Your task to perform on an android device: Do I have any events today? Image 0: 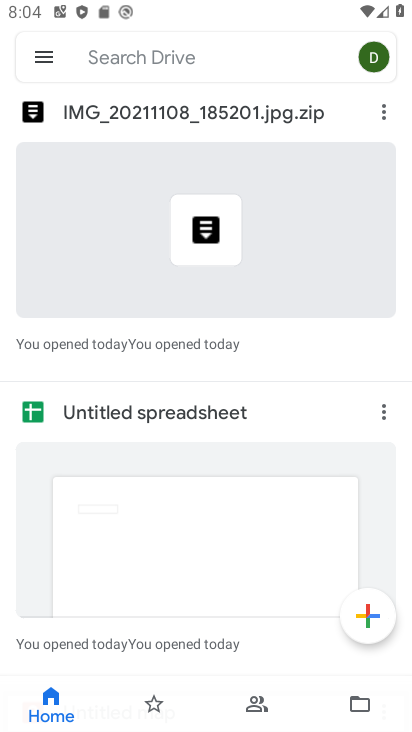
Step 0: press home button
Your task to perform on an android device: Do I have any events today? Image 1: 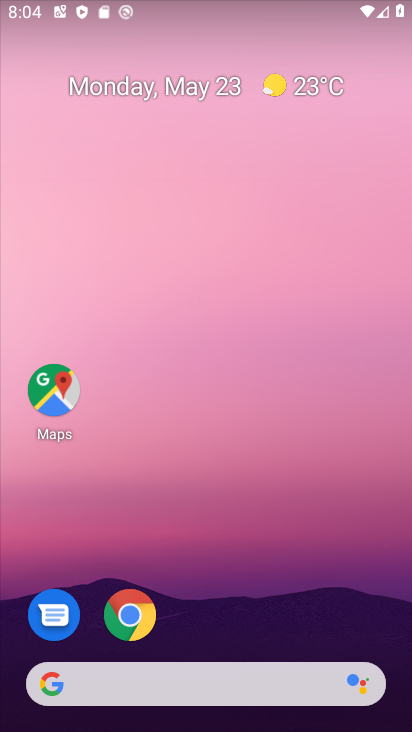
Step 1: drag from (271, 608) to (202, 157)
Your task to perform on an android device: Do I have any events today? Image 2: 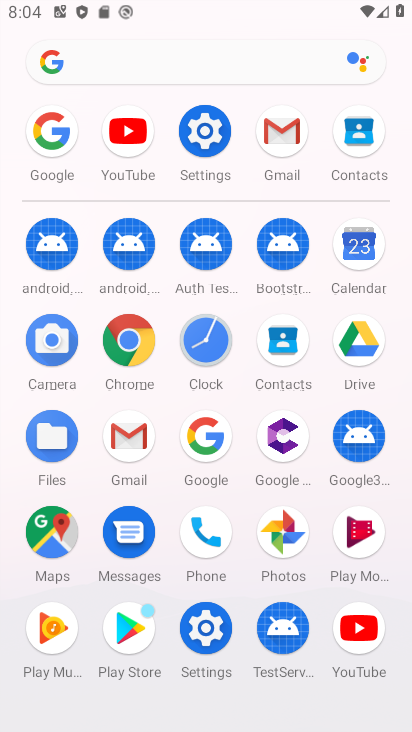
Step 2: click (360, 244)
Your task to perform on an android device: Do I have any events today? Image 3: 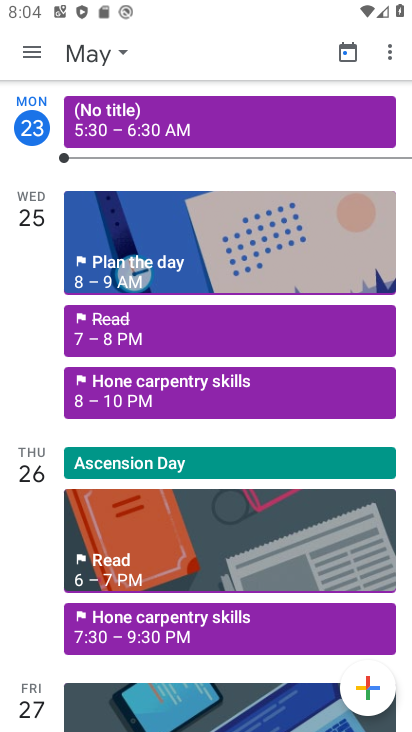
Step 3: click (354, 49)
Your task to perform on an android device: Do I have any events today? Image 4: 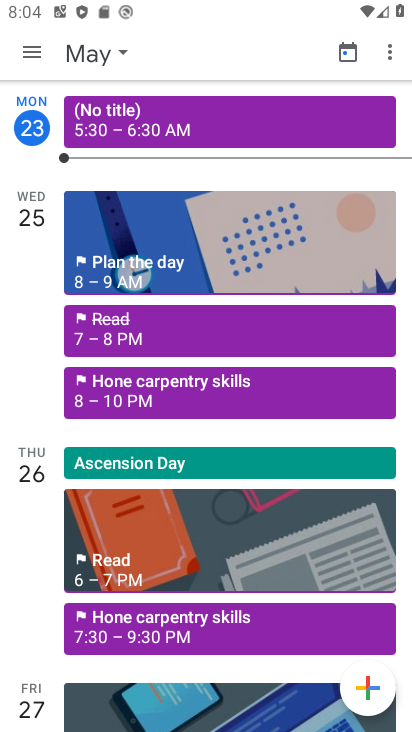
Step 4: click (117, 51)
Your task to perform on an android device: Do I have any events today? Image 5: 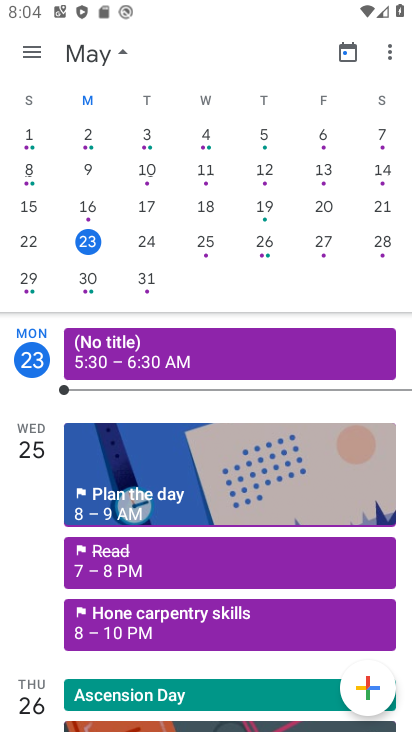
Step 5: click (156, 338)
Your task to perform on an android device: Do I have any events today? Image 6: 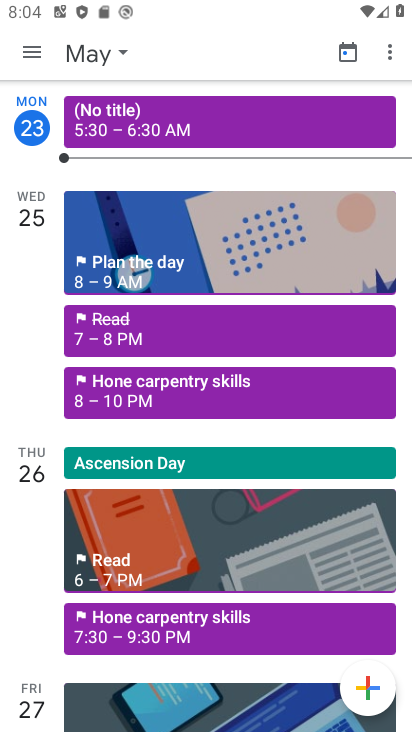
Step 6: click (216, 103)
Your task to perform on an android device: Do I have any events today? Image 7: 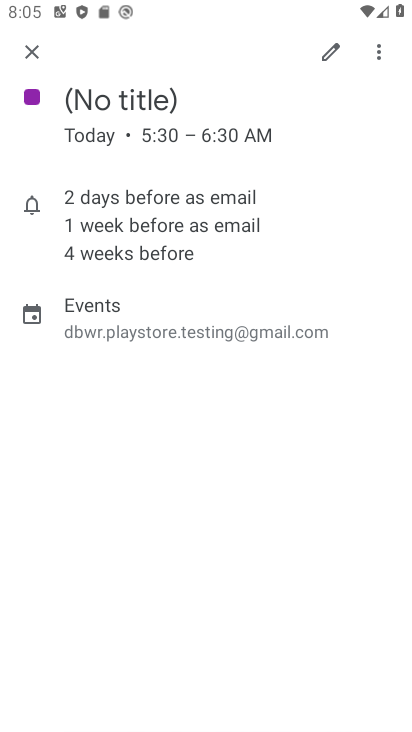
Step 7: task complete